Your task to perform on an android device: Go to Maps Image 0: 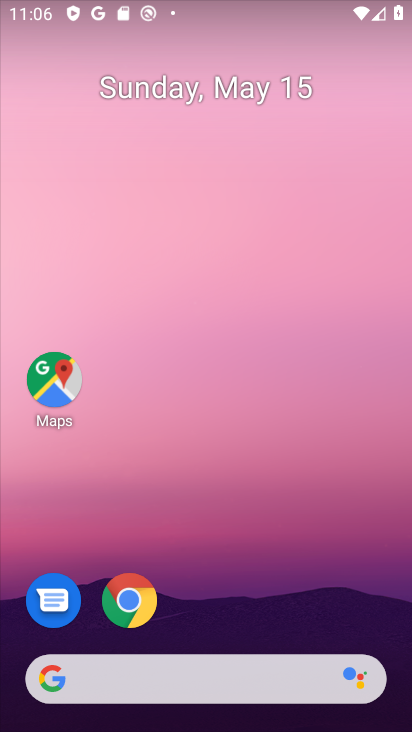
Step 0: click (52, 382)
Your task to perform on an android device: Go to Maps Image 1: 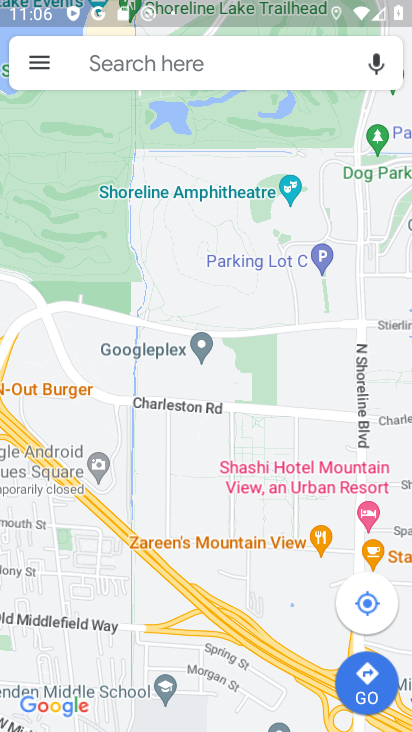
Step 1: task complete